Your task to perform on an android device: open device folders in google photos Image 0: 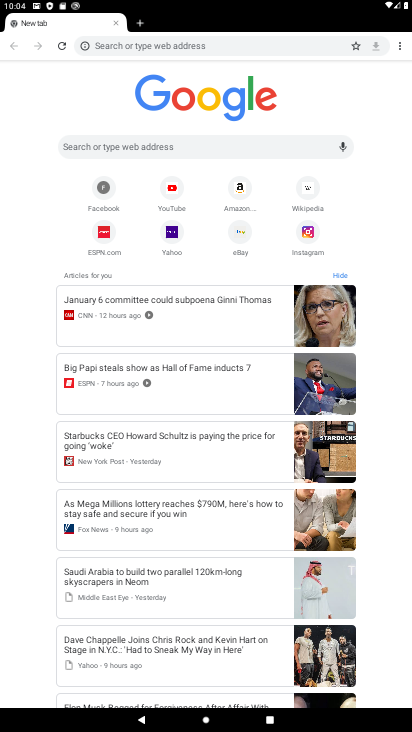
Step 0: press home button
Your task to perform on an android device: open device folders in google photos Image 1: 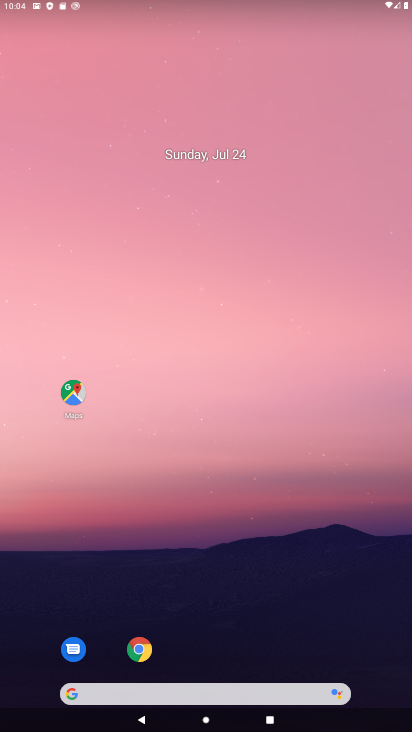
Step 1: drag from (244, 448) to (189, 33)
Your task to perform on an android device: open device folders in google photos Image 2: 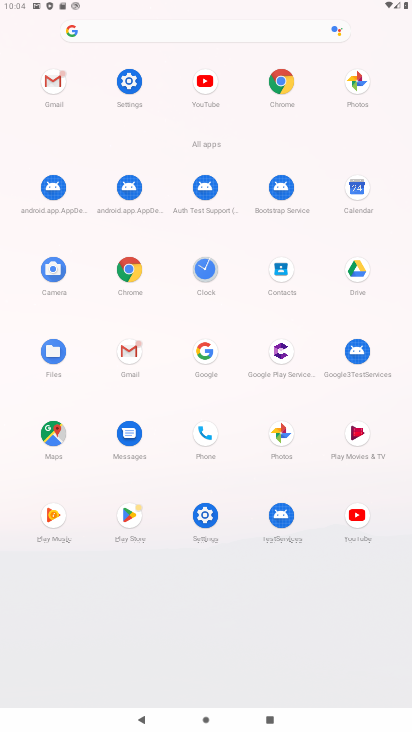
Step 2: click (281, 443)
Your task to perform on an android device: open device folders in google photos Image 3: 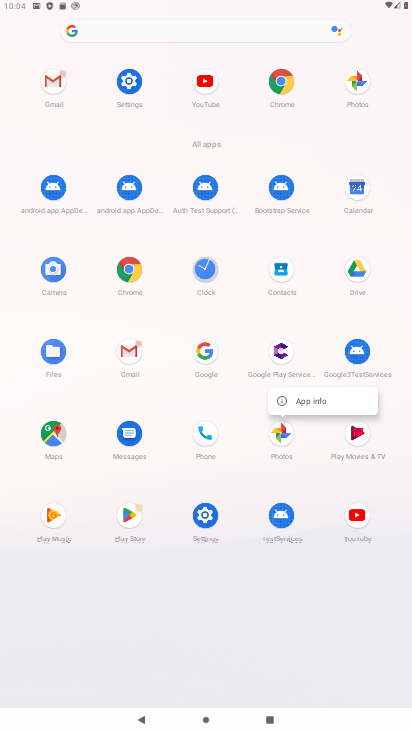
Step 3: click (277, 439)
Your task to perform on an android device: open device folders in google photos Image 4: 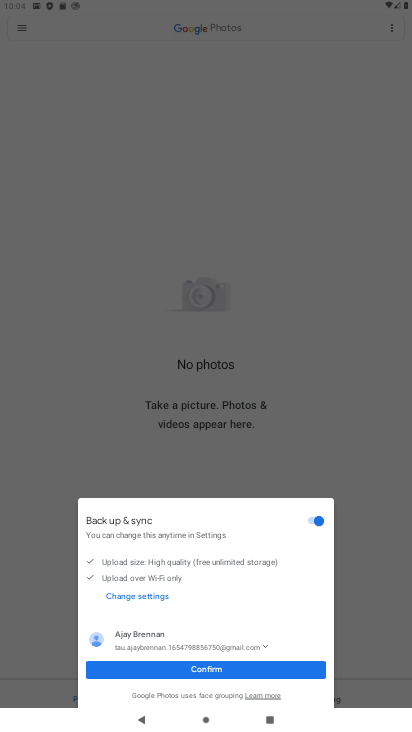
Step 4: click (205, 668)
Your task to perform on an android device: open device folders in google photos Image 5: 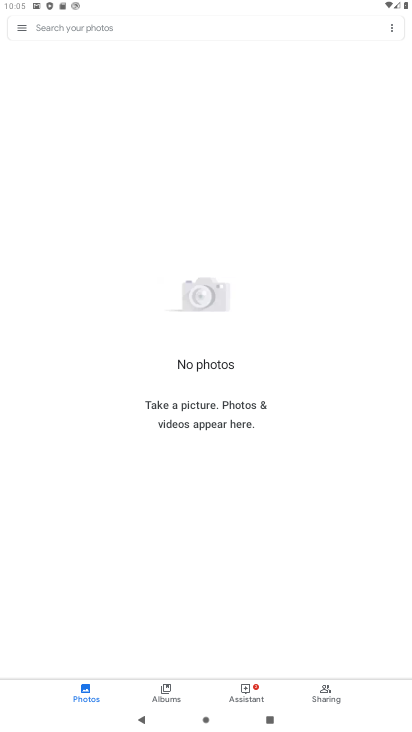
Step 5: click (23, 25)
Your task to perform on an android device: open device folders in google photos Image 6: 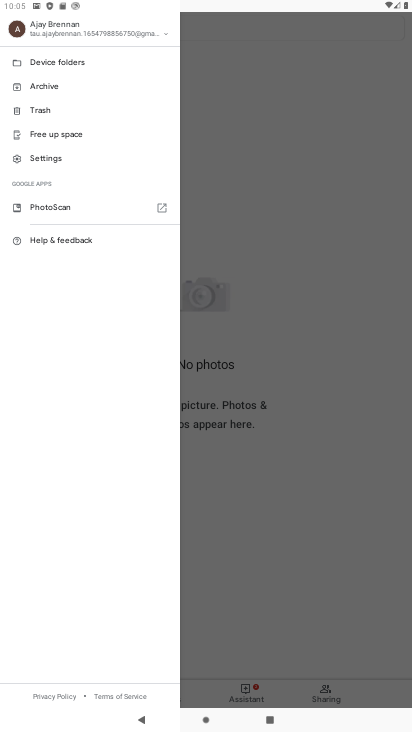
Step 6: click (67, 66)
Your task to perform on an android device: open device folders in google photos Image 7: 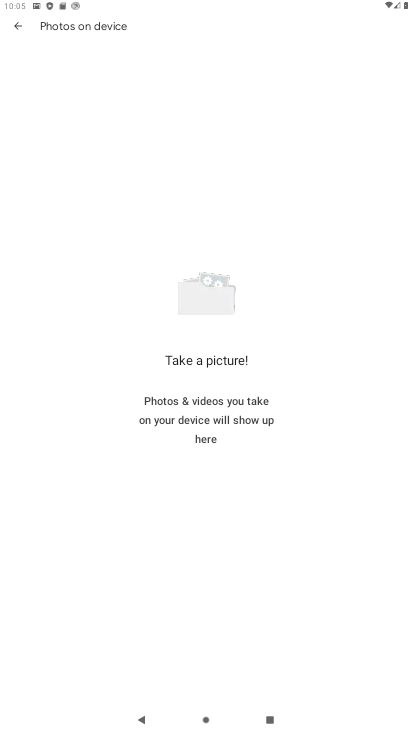
Step 7: task complete